Your task to perform on an android device: see sites visited before in the chrome app Image 0: 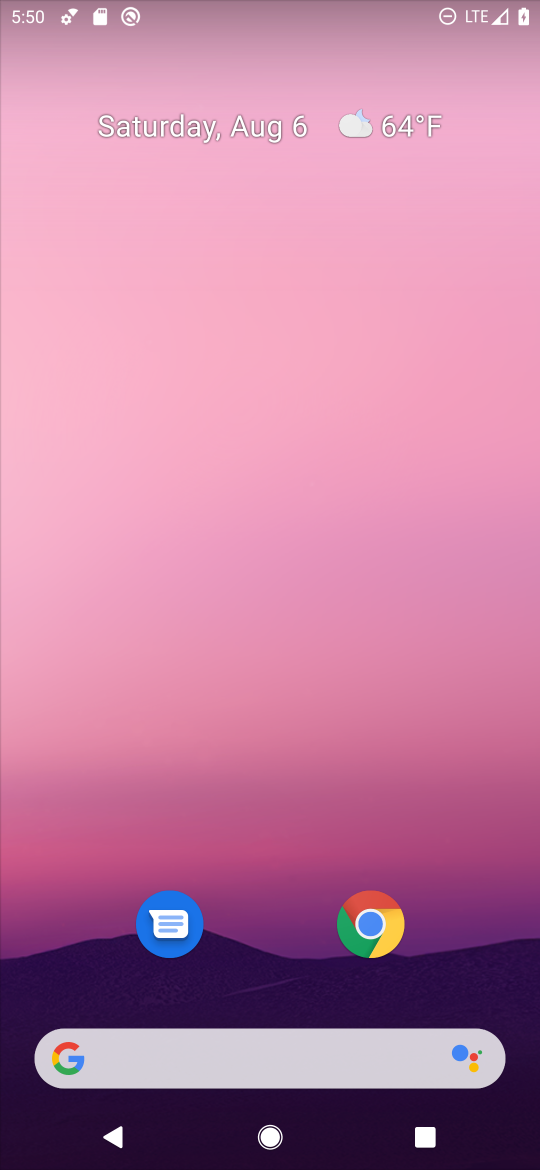
Step 0: click (369, 926)
Your task to perform on an android device: see sites visited before in the chrome app Image 1: 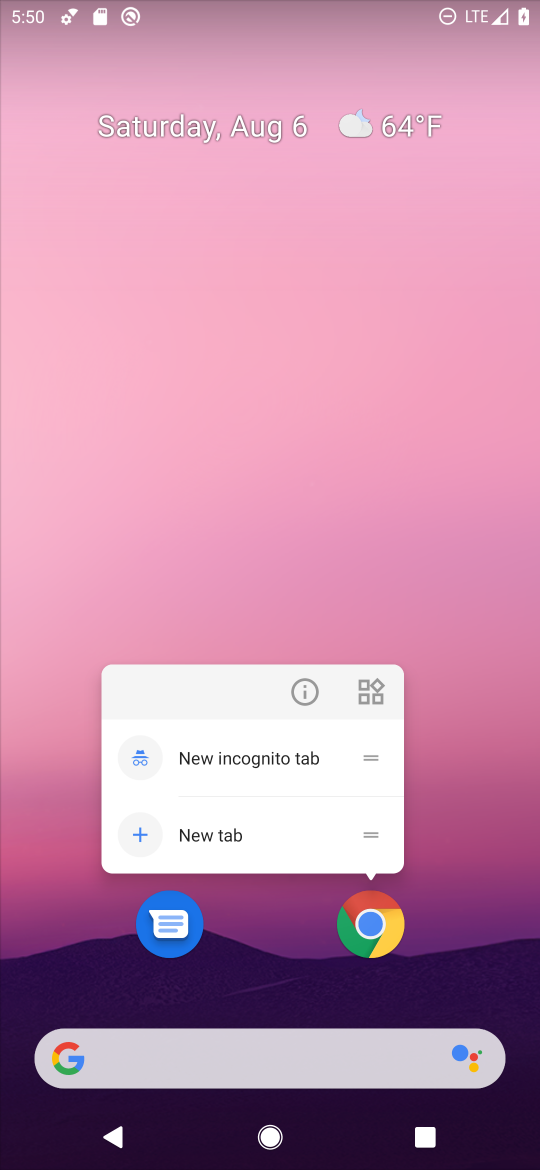
Step 1: click (369, 926)
Your task to perform on an android device: see sites visited before in the chrome app Image 2: 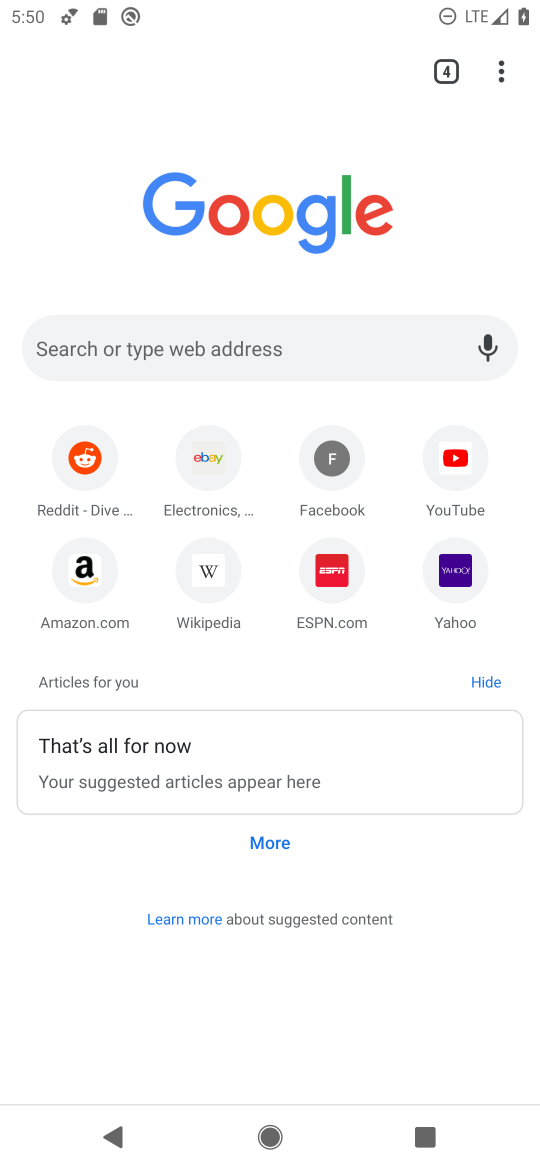
Step 2: click (499, 69)
Your task to perform on an android device: see sites visited before in the chrome app Image 3: 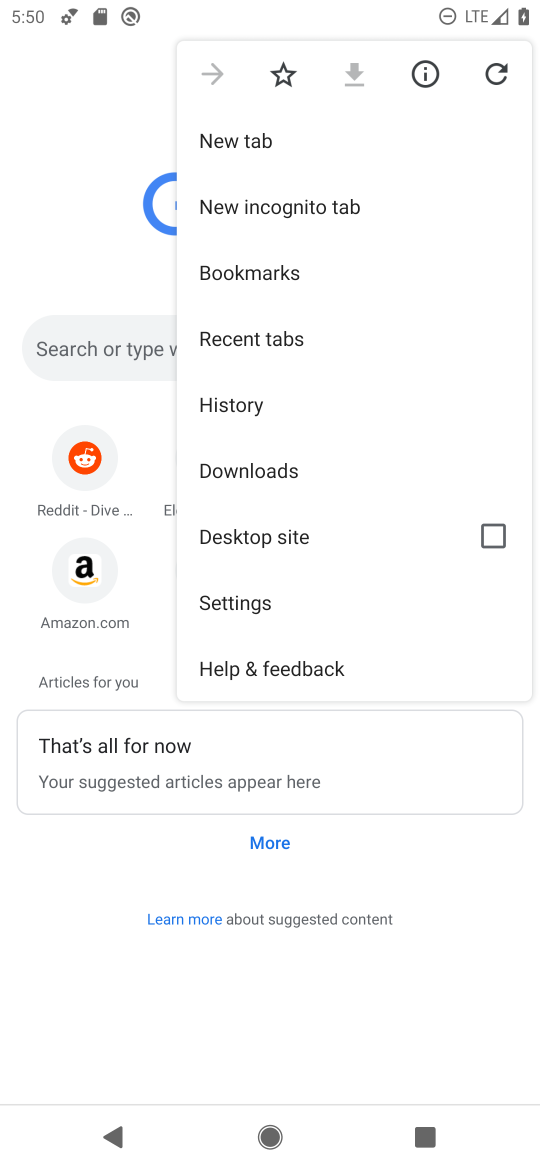
Step 3: click (237, 399)
Your task to perform on an android device: see sites visited before in the chrome app Image 4: 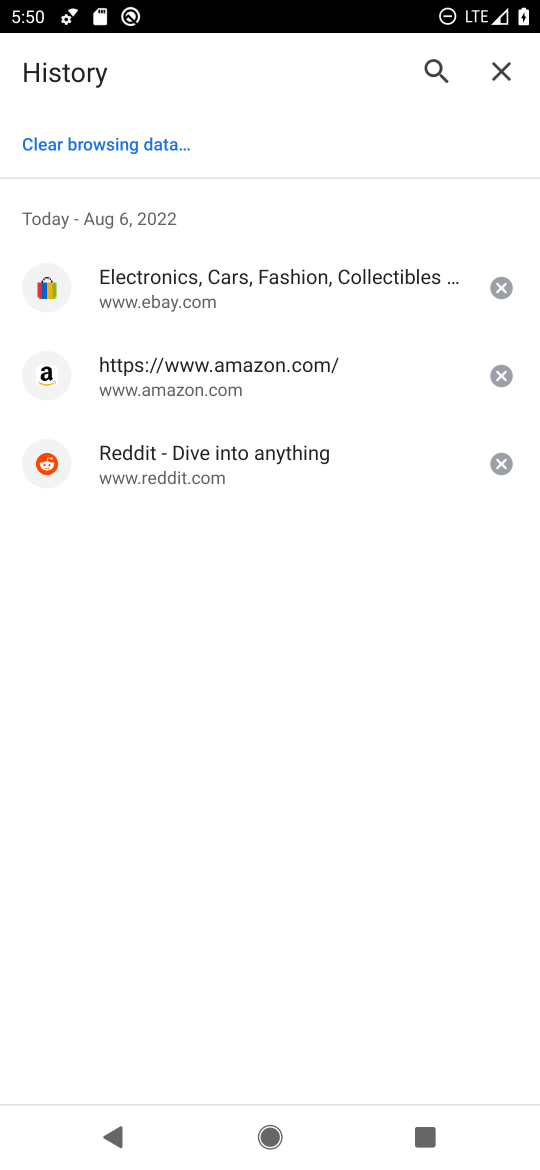
Step 4: task complete